Your task to perform on an android device: Open eBay Image 0: 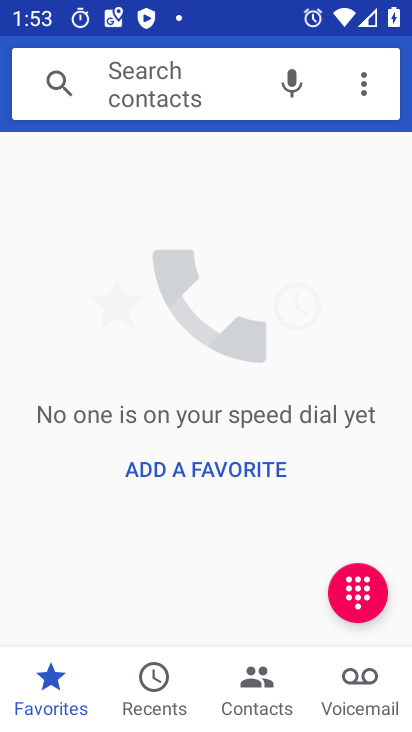
Step 0: press back button
Your task to perform on an android device: Open eBay Image 1: 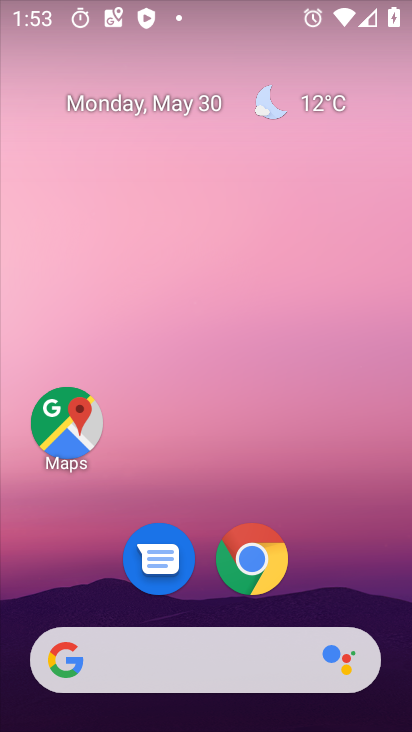
Step 1: click (248, 563)
Your task to perform on an android device: Open eBay Image 2: 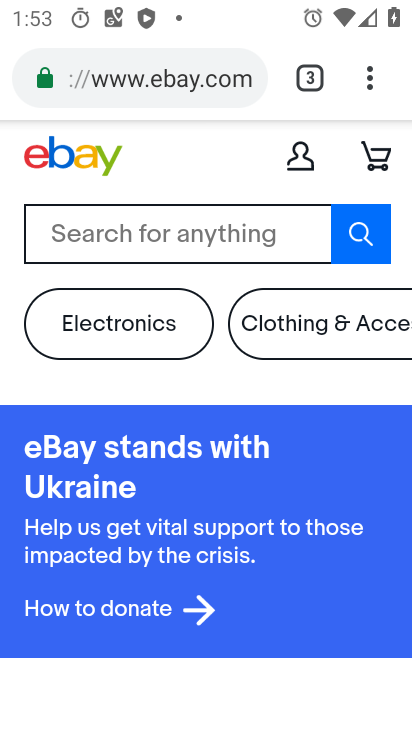
Step 2: task complete